Your task to perform on an android device: Go to Google maps Image 0: 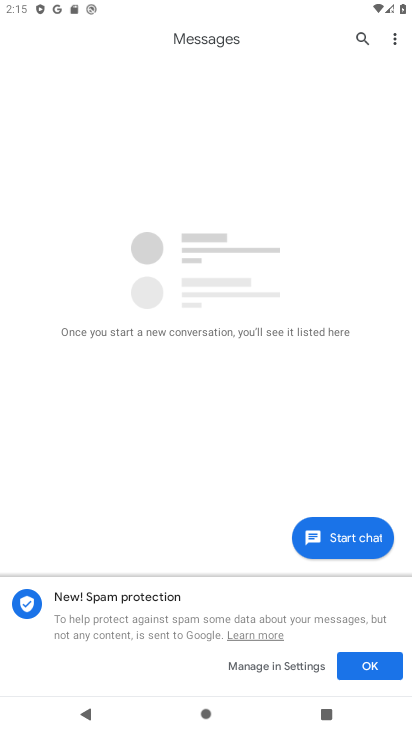
Step 0: press home button
Your task to perform on an android device: Go to Google maps Image 1: 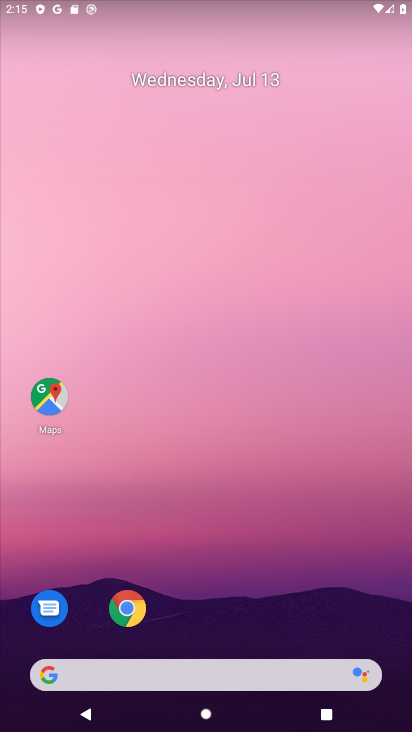
Step 1: click (55, 393)
Your task to perform on an android device: Go to Google maps Image 2: 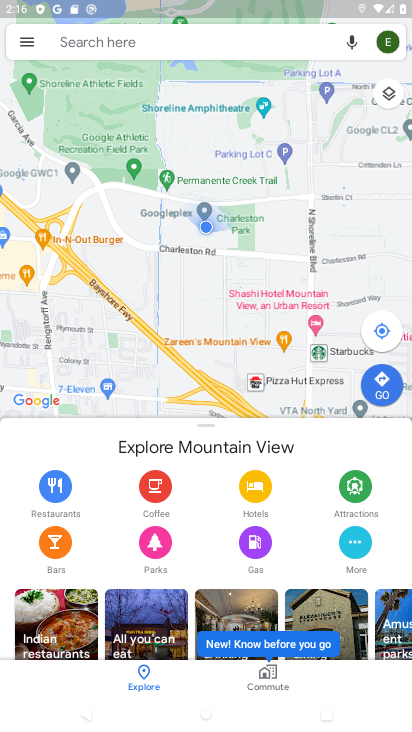
Step 2: task complete